Your task to perform on an android device: turn off location Image 0: 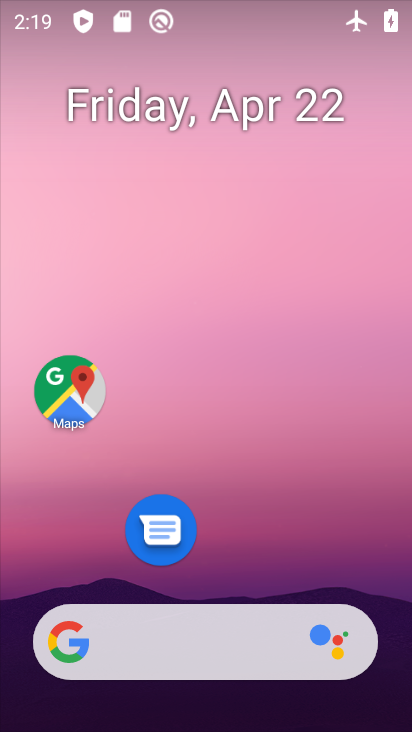
Step 0: drag from (251, 556) to (244, 2)
Your task to perform on an android device: turn off location Image 1: 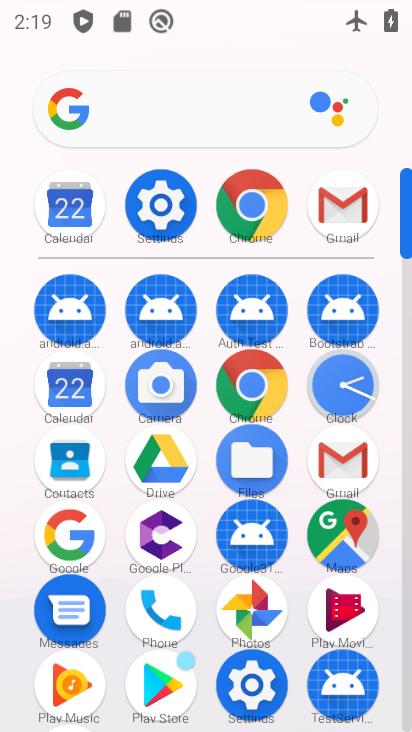
Step 1: click (157, 210)
Your task to perform on an android device: turn off location Image 2: 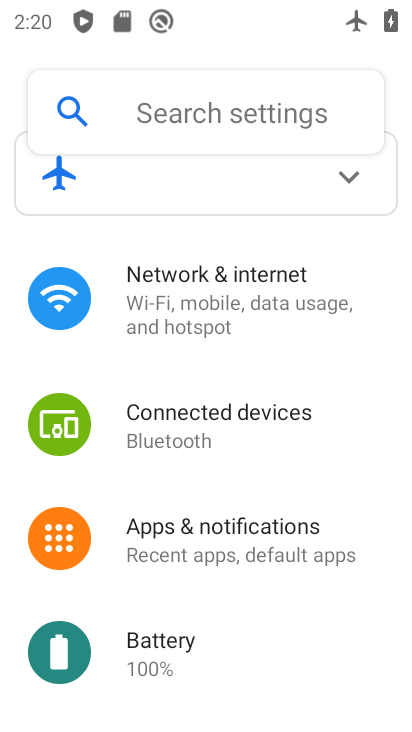
Step 2: drag from (209, 577) to (208, 194)
Your task to perform on an android device: turn off location Image 3: 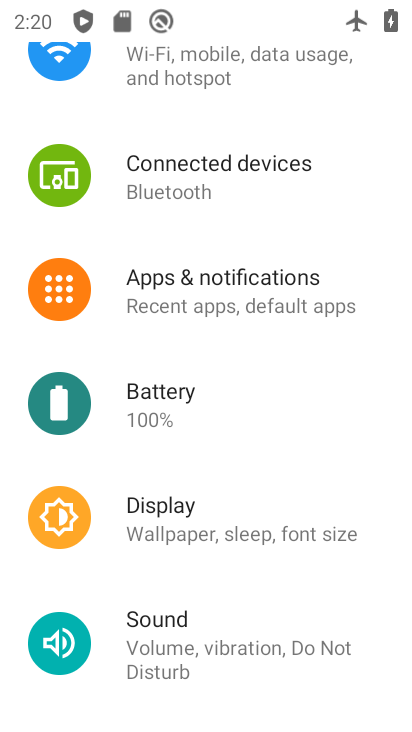
Step 3: drag from (194, 561) to (192, 257)
Your task to perform on an android device: turn off location Image 4: 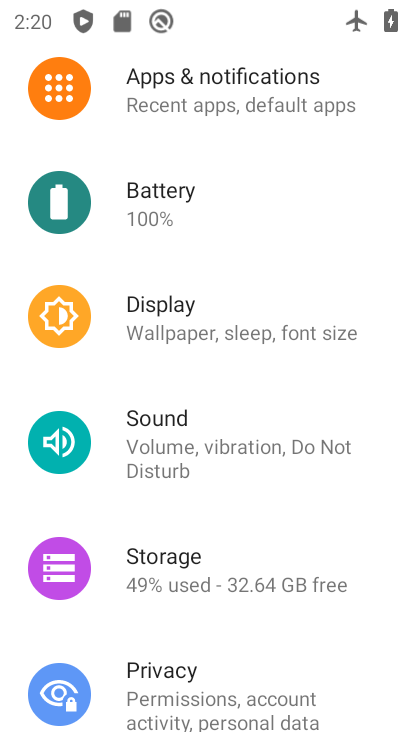
Step 4: drag from (224, 580) to (216, 252)
Your task to perform on an android device: turn off location Image 5: 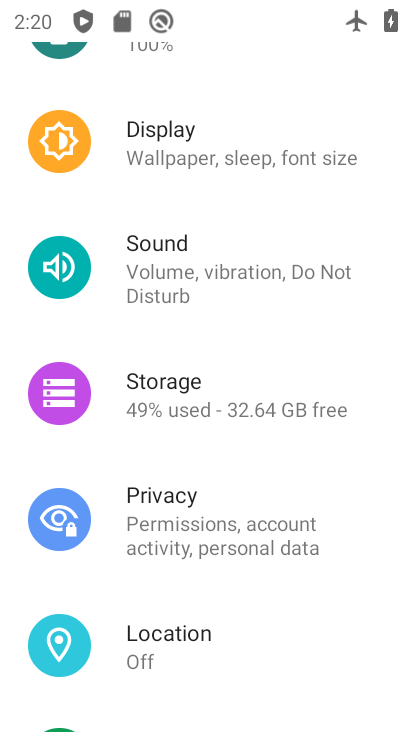
Step 5: click (166, 630)
Your task to perform on an android device: turn off location Image 6: 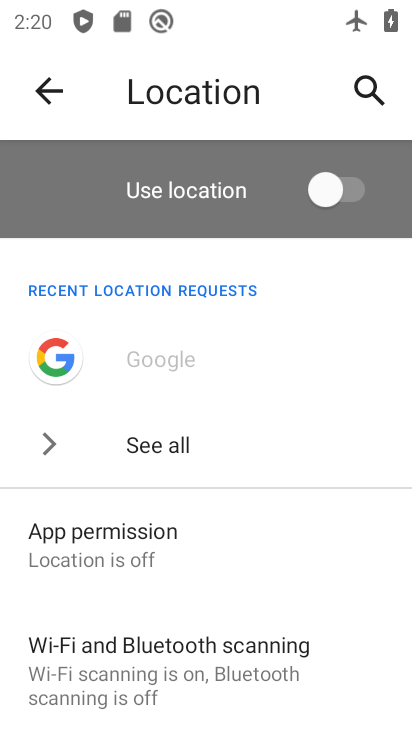
Step 6: task complete